Your task to perform on an android device: Open the map Image 0: 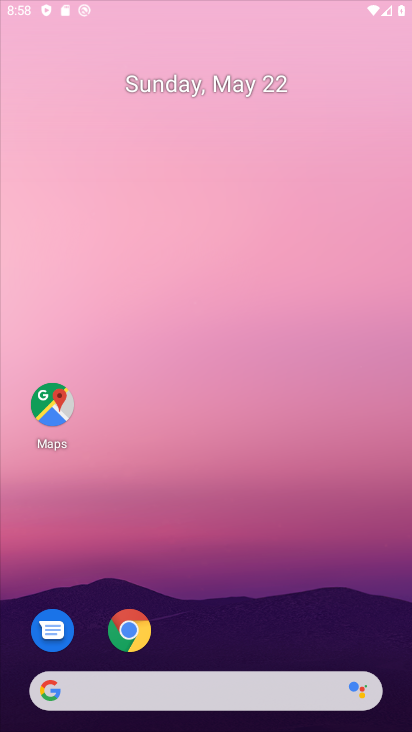
Step 0: click (148, 633)
Your task to perform on an android device: Open the map Image 1: 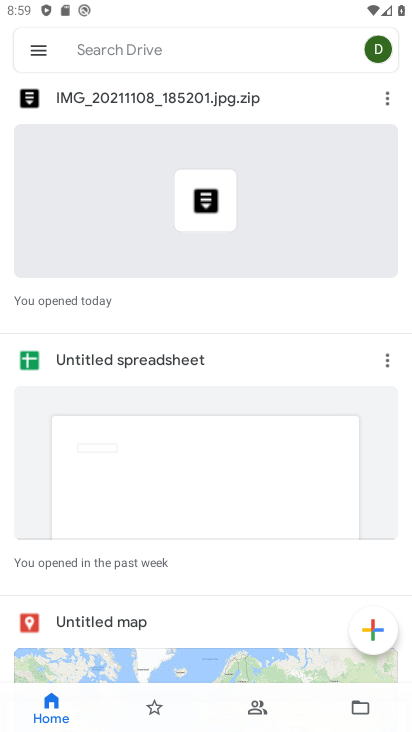
Step 1: press back button
Your task to perform on an android device: Open the map Image 2: 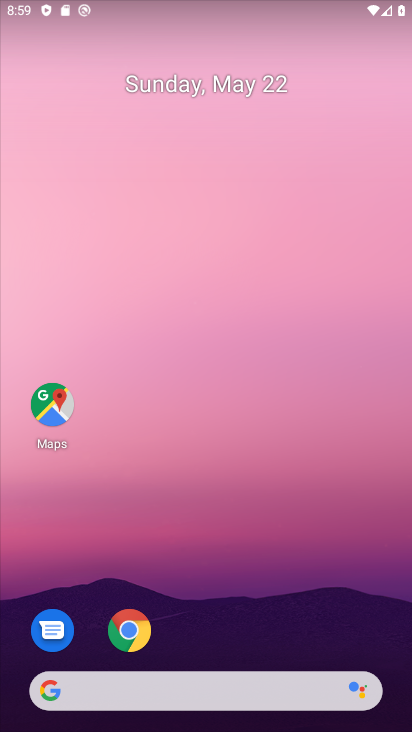
Step 2: click (133, 633)
Your task to perform on an android device: Open the map Image 3: 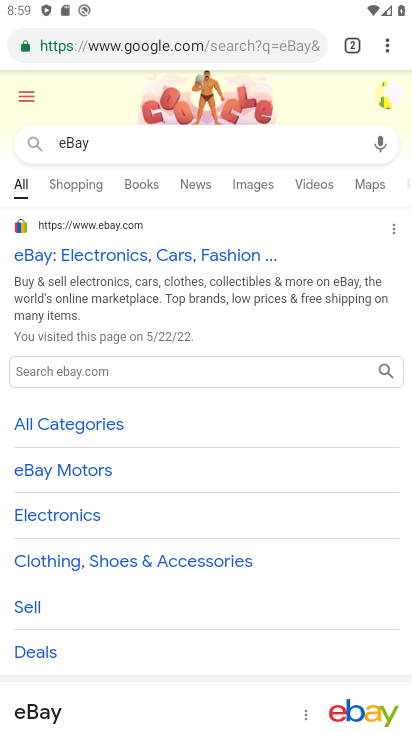
Step 3: press home button
Your task to perform on an android device: Open the map Image 4: 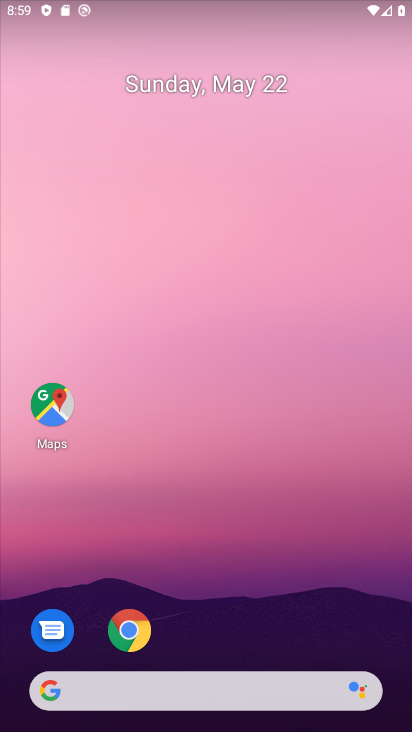
Step 4: click (39, 399)
Your task to perform on an android device: Open the map Image 5: 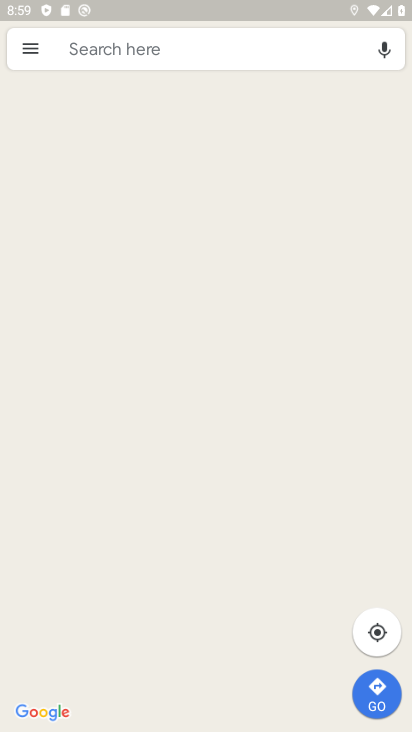
Step 5: task complete